Your task to perform on an android device: toggle wifi Image 0: 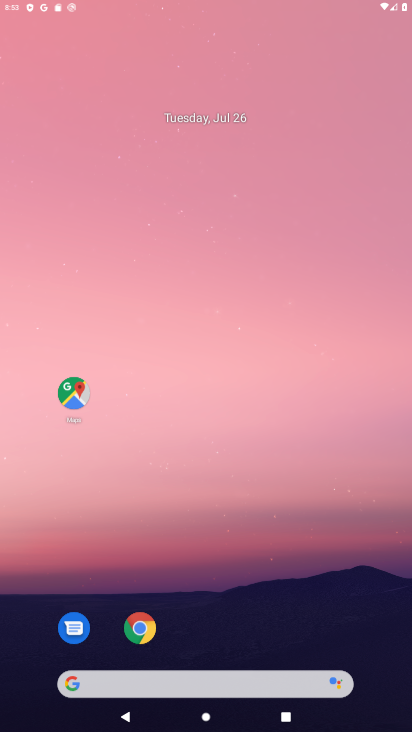
Step 0: press home button
Your task to perform on an android device: toggle wifi Image 1: 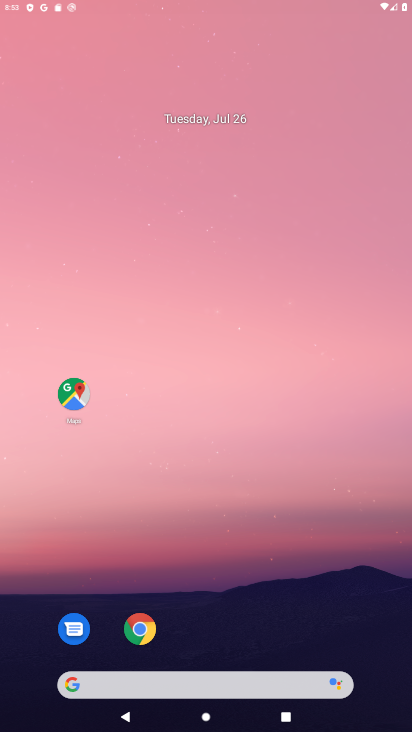
Step 1: click (300, 600)
Your task to perform on an android device: toggle wifi Image 2: 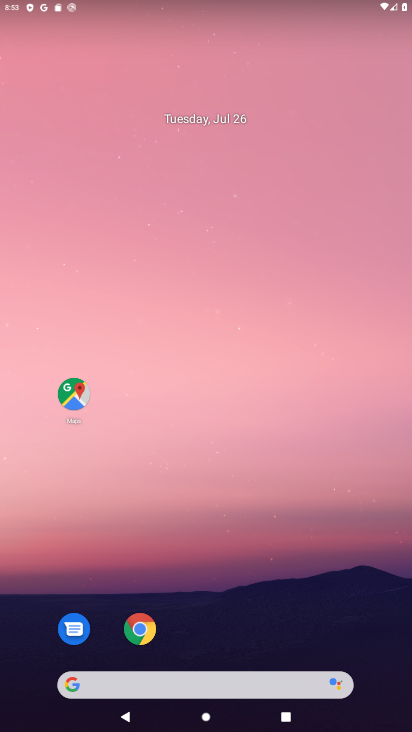
Step 2: drag from (310, 18) to (344, 426)
Your task to perform on an android device: toggle wifi Image 3: 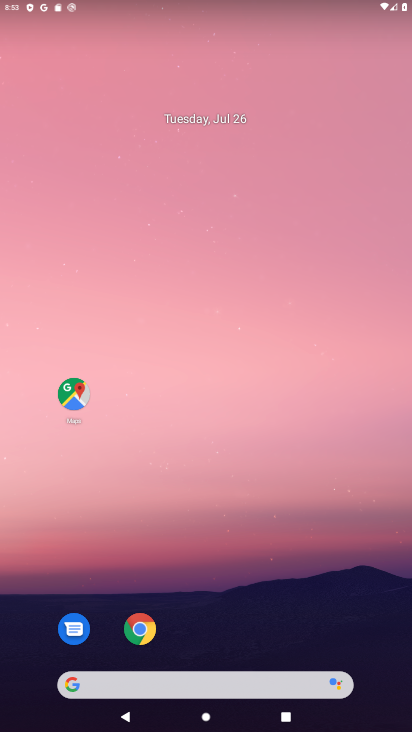
Step 3: drag from (378, 6) to (388, 471)
Your task to perform on an android device: toggle wifi Image 4: 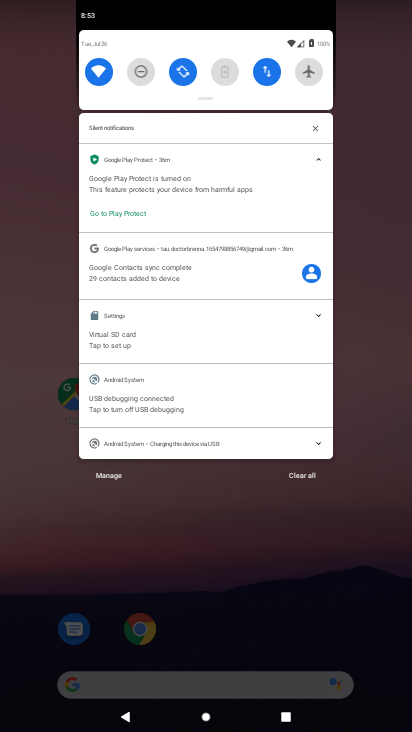
Step 4: click (102, 80)
Your task to perform on an android device: toggle wifi Image 5: 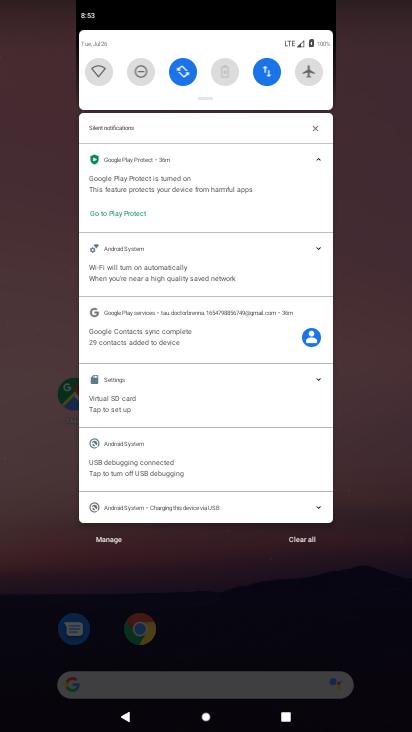
Step 5: task complete